Your task to perform on an android device: Open eBay Image 0: 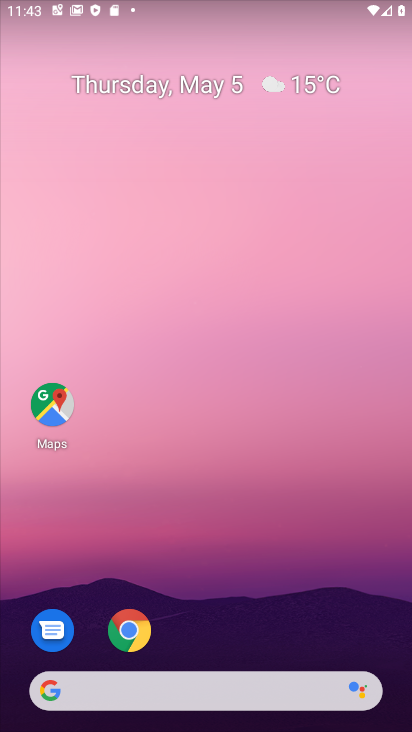
Step 0: click (136, 624)
Your task to perform on an android device: Open eBay Image 1: 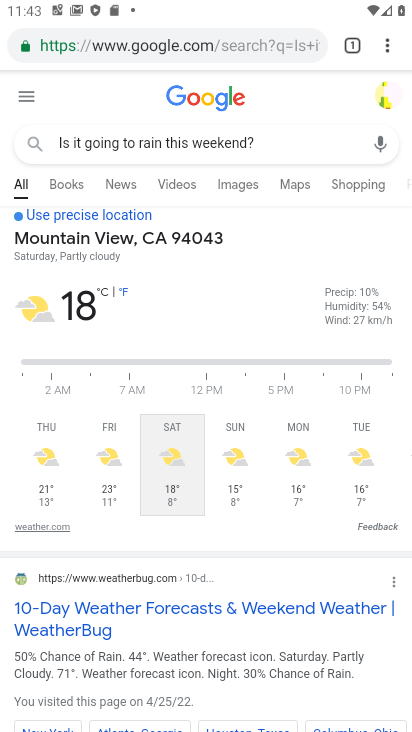
Step 1: click (350, 42)
Your task to perform on an android device: Open eBay Image 2: 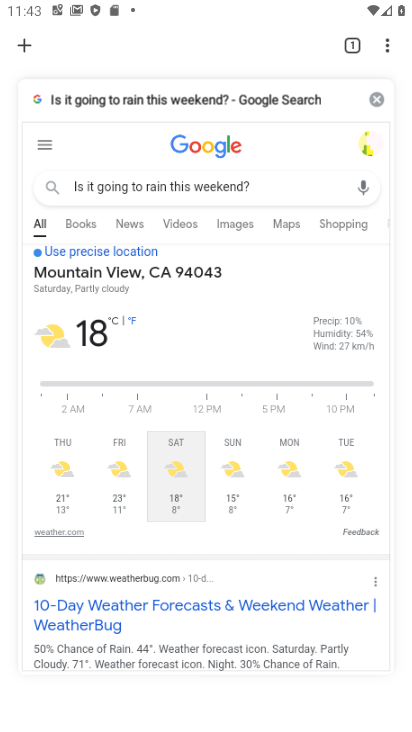
Step 2: click (27, 43)
Your task to perform on an android device: Open eBay Image 3: 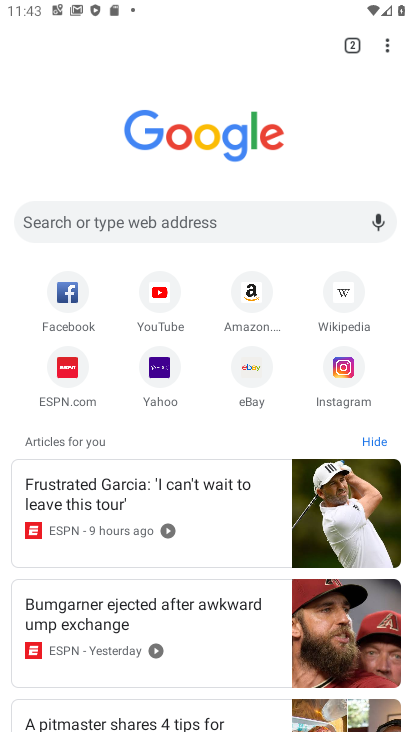
Step 3: click (260, 357)
Your task to perform on an android device: Open eBay Image 4: 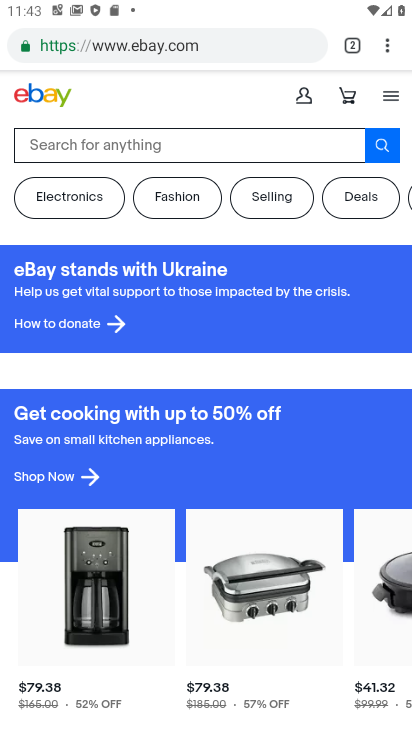
Step 4: task complete